Your task to perform on an android device: Open Chrome and go to the settings page Image 0: 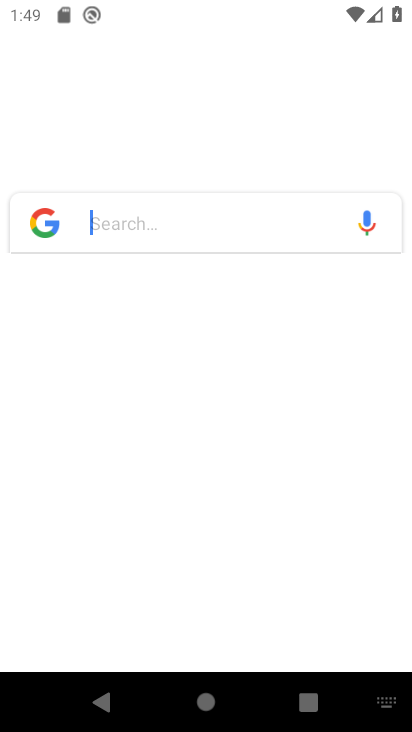
Step 0: drag from (365, 545) to (407, 291)
Your task to perform on an android device: Open Chrome and go to the settings page Image 1: 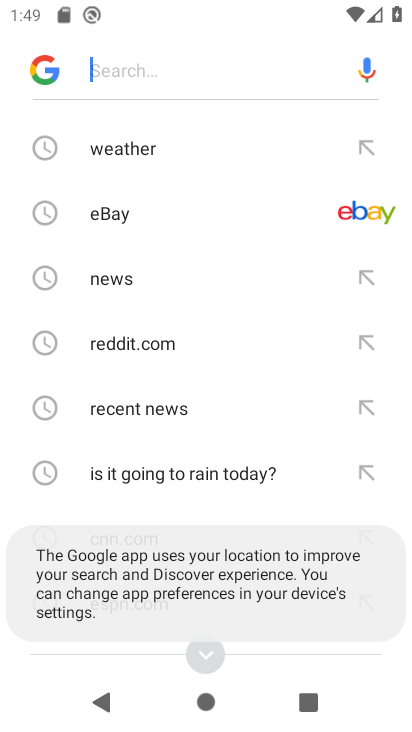
Step 1: press home button
Your task to perform on an android device: Open Chrome and go to the settings page Image 2: 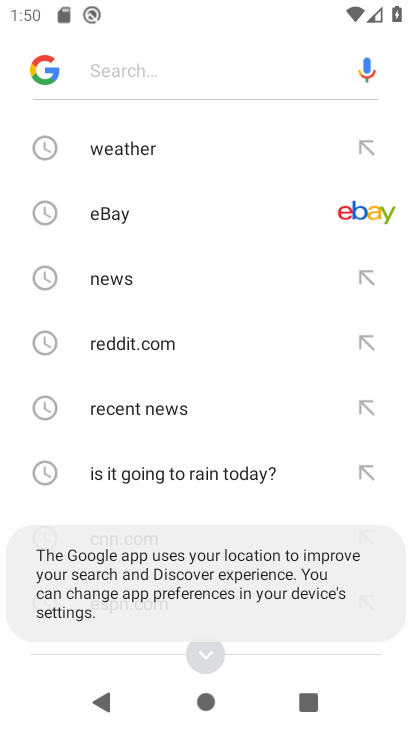
Step 2: drag from (407, 291) to (388, 418)
Your task to perform on an android device: Open Chrome and go to the settings page Image 3: 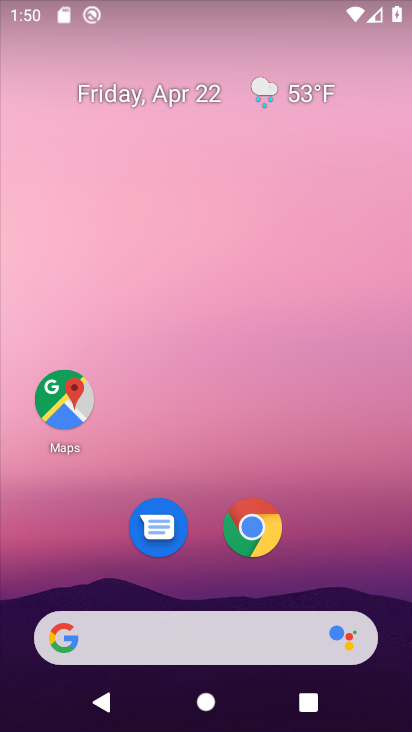
Step 3: click (261, 532)
Your task to perform on an android device: Open Chrome and go to the settings page Image 4: 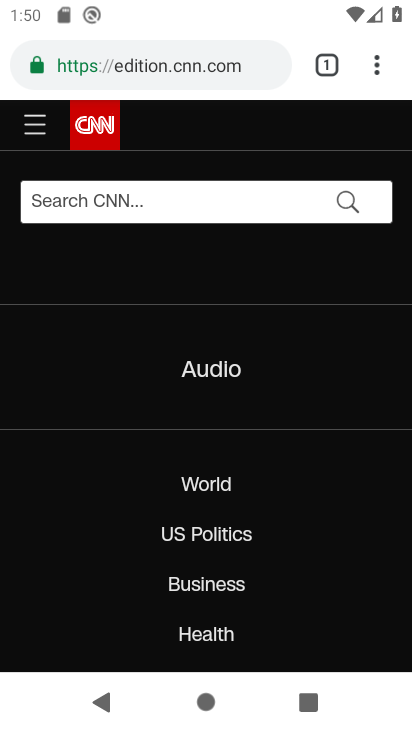
Step 4: click (369, 55)
Your task to perform on an android device: Open Chrome and go to the settings page Image 5: 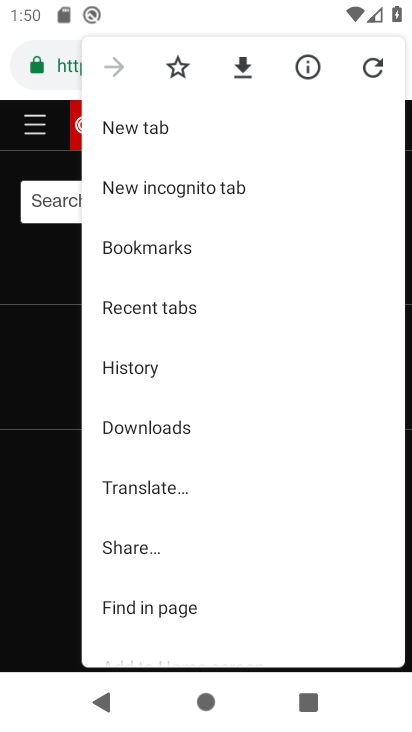
Step 5: drag from (162, 618) to (230, 177)
Your task to perform on an android device: Open Chrome and go to the settings page Image 6: 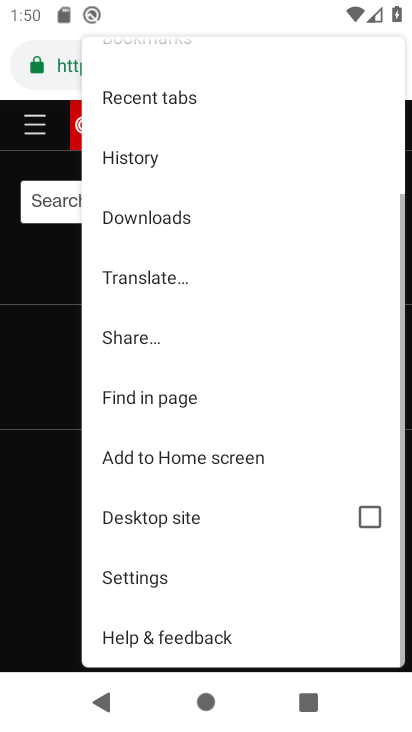
Step 6: click (154, 585)
Your task to perform on an android device: Open Chrome and go to the settings page Image 7: 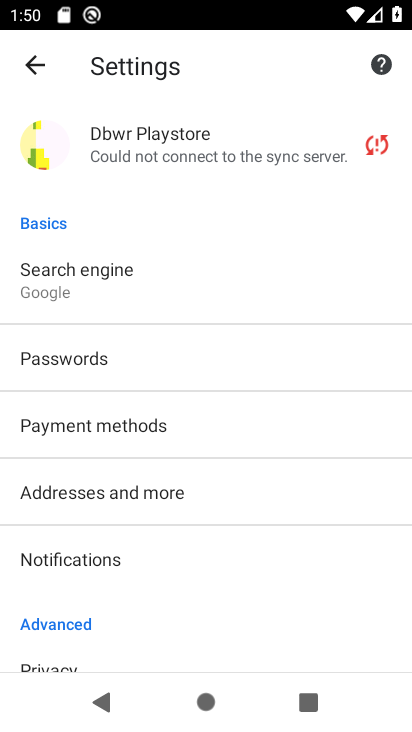
Step 7: task complete